Your task to perform on an android device: Go to Google Image 0: 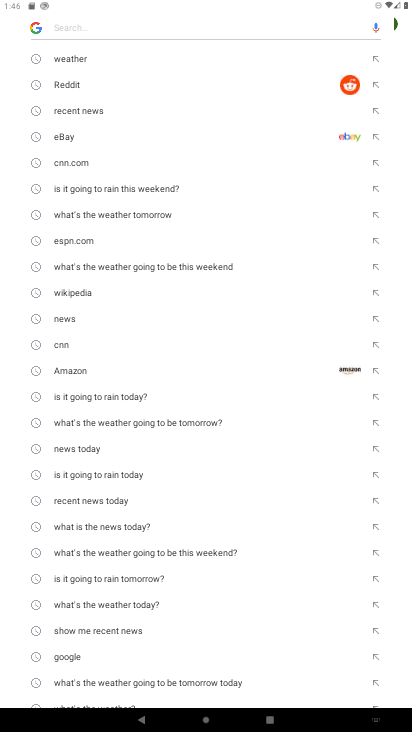
Step 0: press home button
Your task to perform on an android device: Go to Google Image 1: 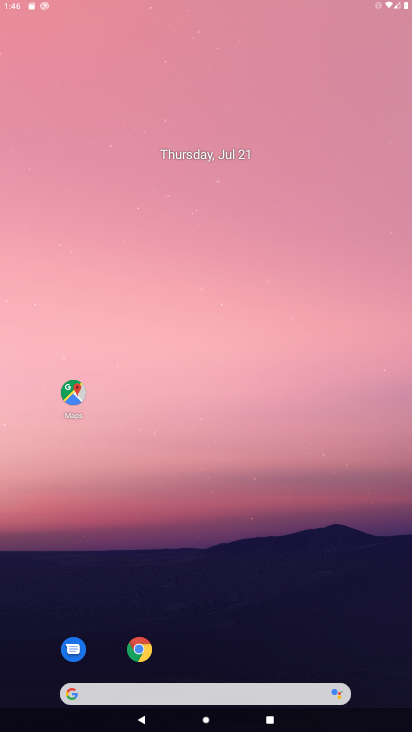
Step 1: press home button
Your task to perform on an android device: Go to Google Image 2: 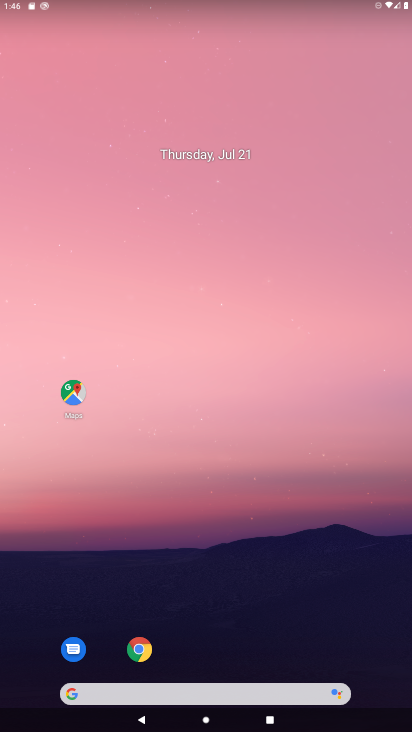
Step 2: drag from (310, 578) to (269, 12)
Your task to perform on an android device: Go to Google Image 3: 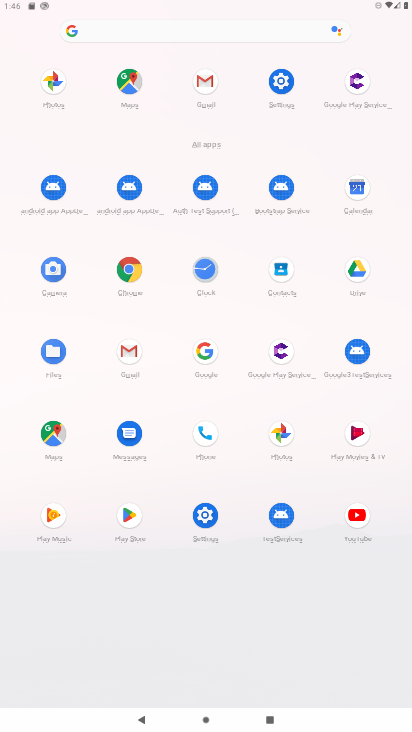
Step 3: click (210, 357)
Your task to perform on an android device: Go to Google Image 4: 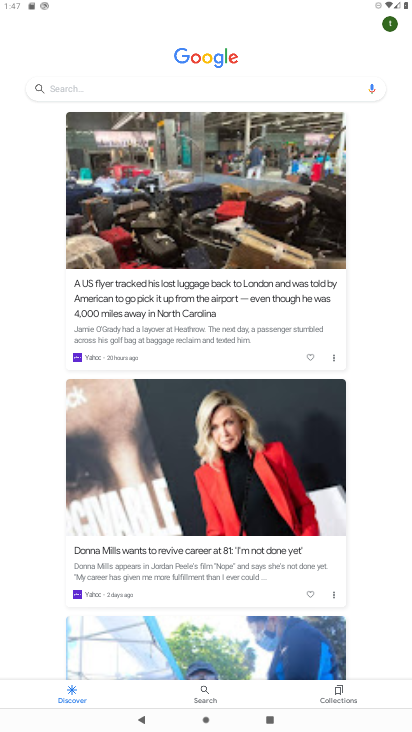
Step 4: task complete